Your task to perform on an android device: Search for Italian restaurants on Maps Image 0: 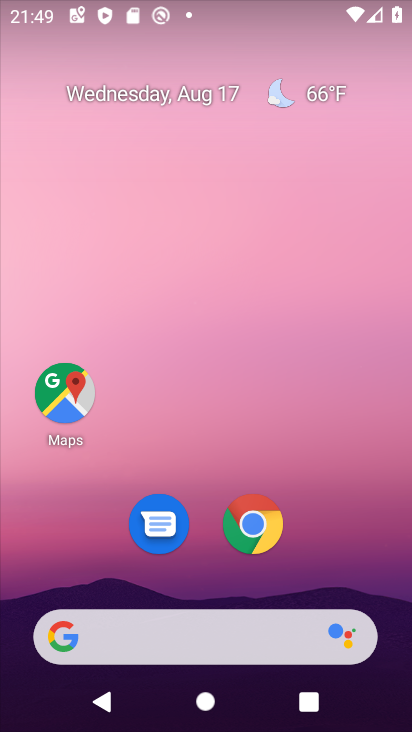
Step 0: click (62, 396)
Your task to perform on an android device: Search for Italian restaurants on Maps Image 1: 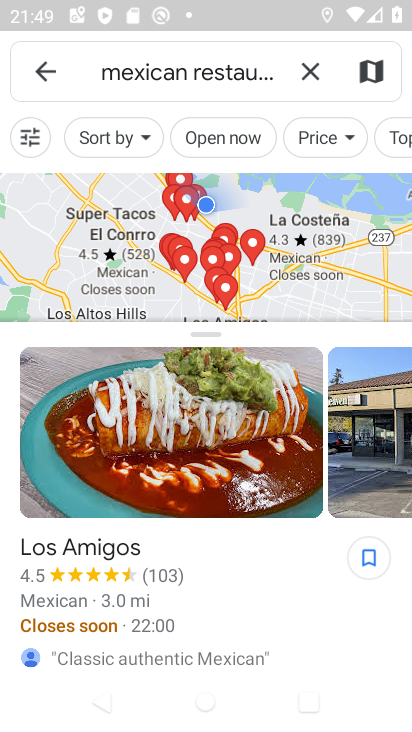
Step 1: click (49, 68)
Your task to perform on an android device: Search for Italian restaurants on Maps Image 2: 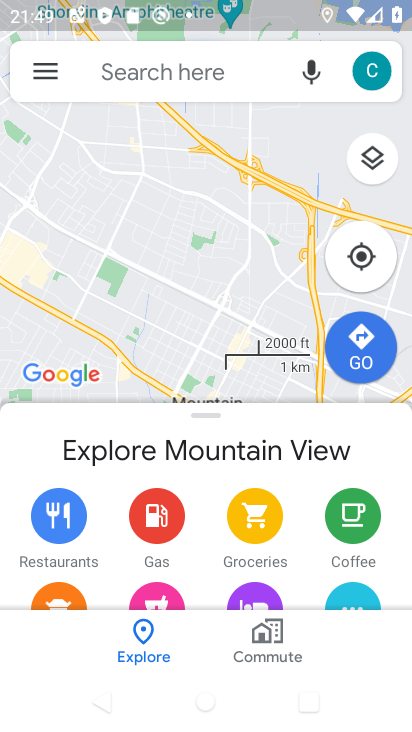
Step 2: click (165, 73)
Your task to perform on an android device: Search for Italian restaurants on Maps Image 3: 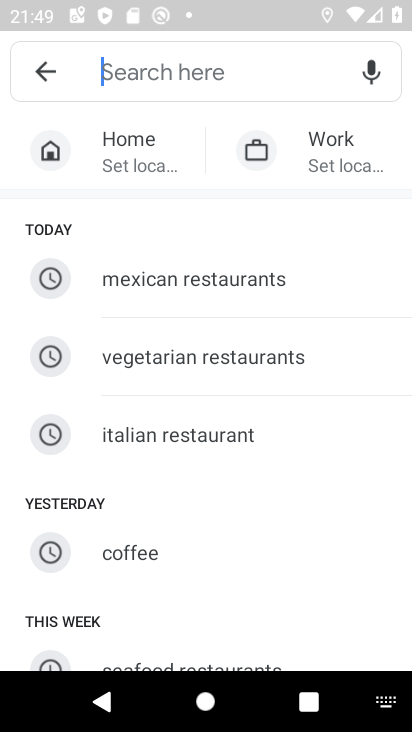
Step 3: click (199, 429)
Your task to perform on an android device: Search for Italian restaurants on Maps Image 4: 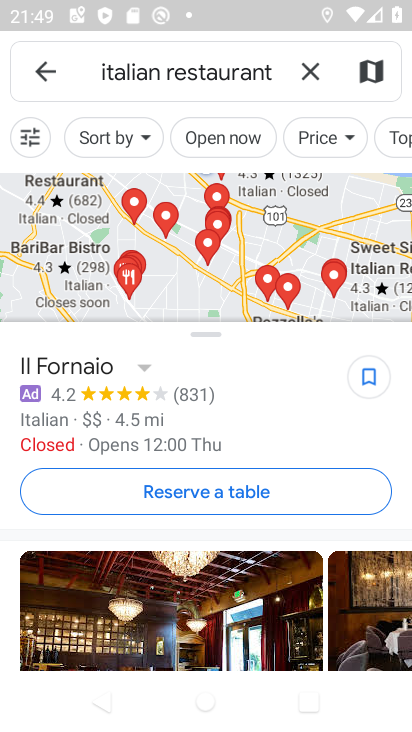
Step 4: task complete